Your task to perform on an android device: Go to Reddit.com Image 0: 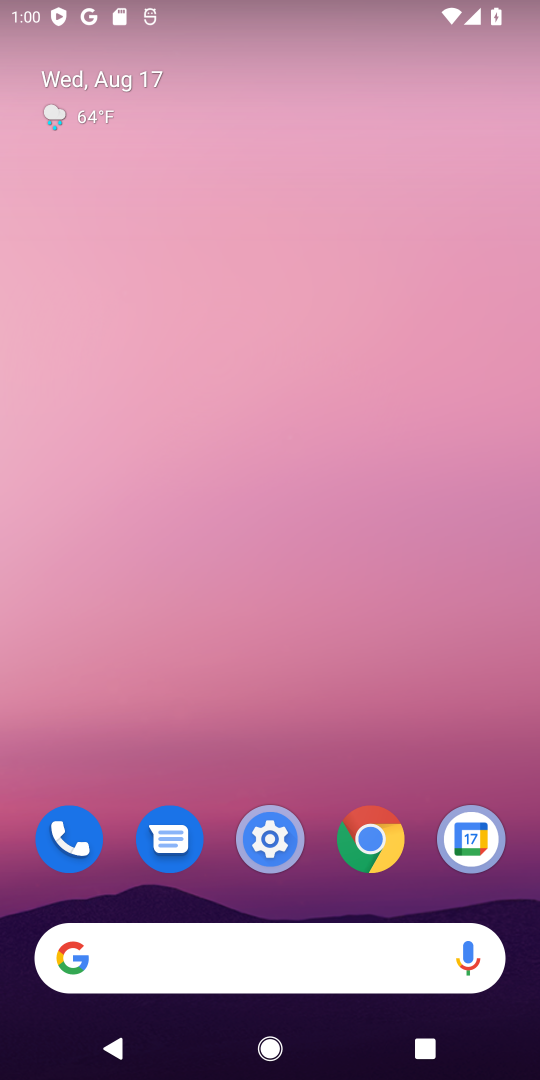
Step 0: click (368, 838)
Your task to perform on an android device: Go to Reddit.com Image 1: 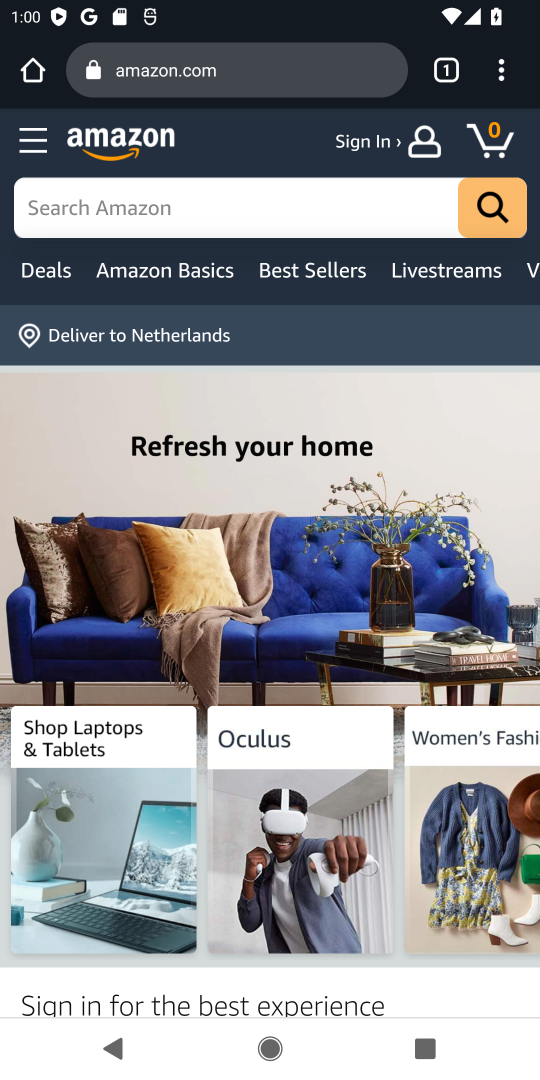
Step 1: click (251, 68)
Your task to perform on an android device: Go to Reddit.com Image 2: 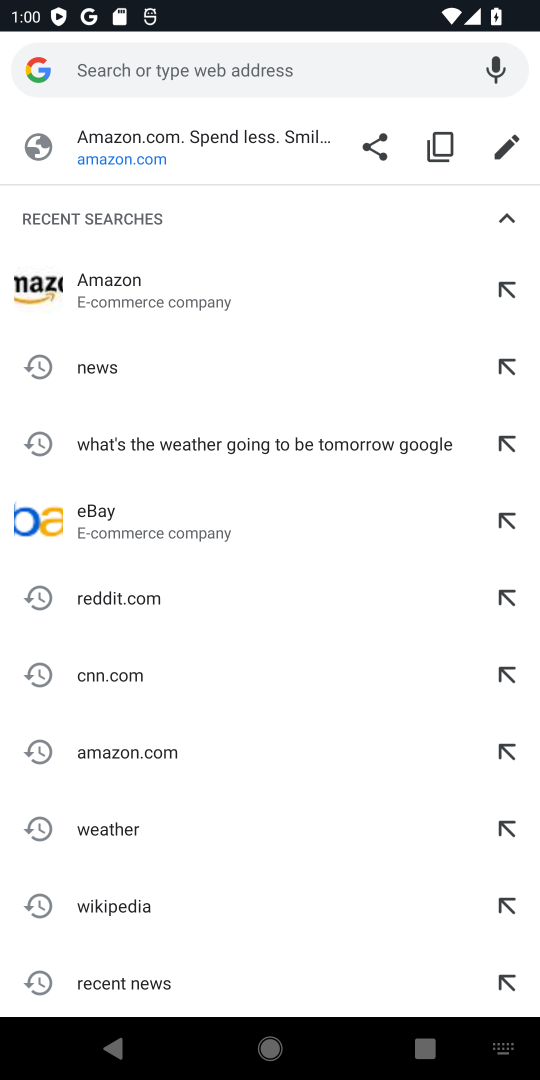
Step 2: click (208, 599)
Your task to perform on an android device: Go to Reddit.com Image 3: 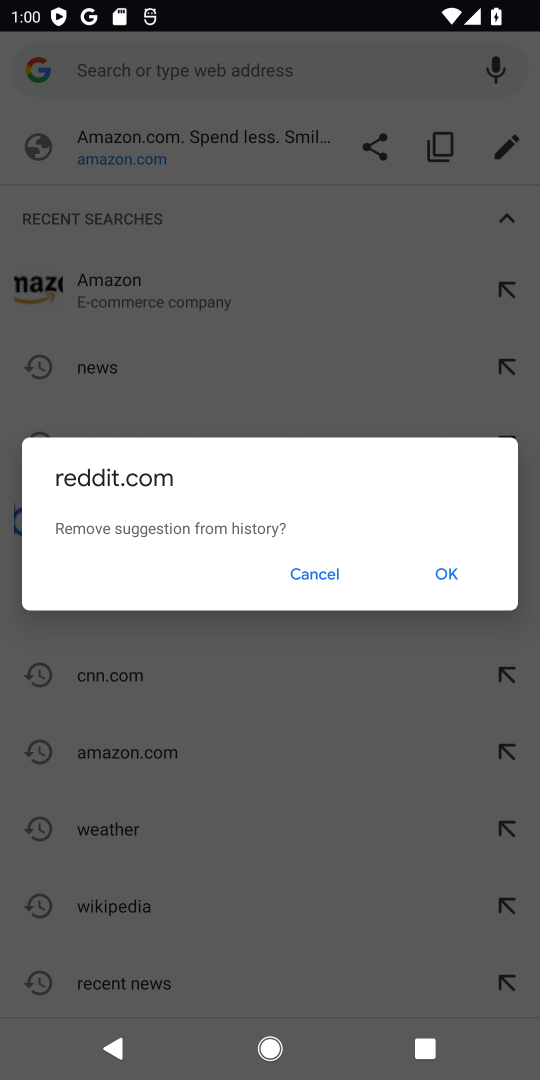
Step 3: click (312, 573)
Your task to perform on an android device: Go to Reddit.com Image 4: 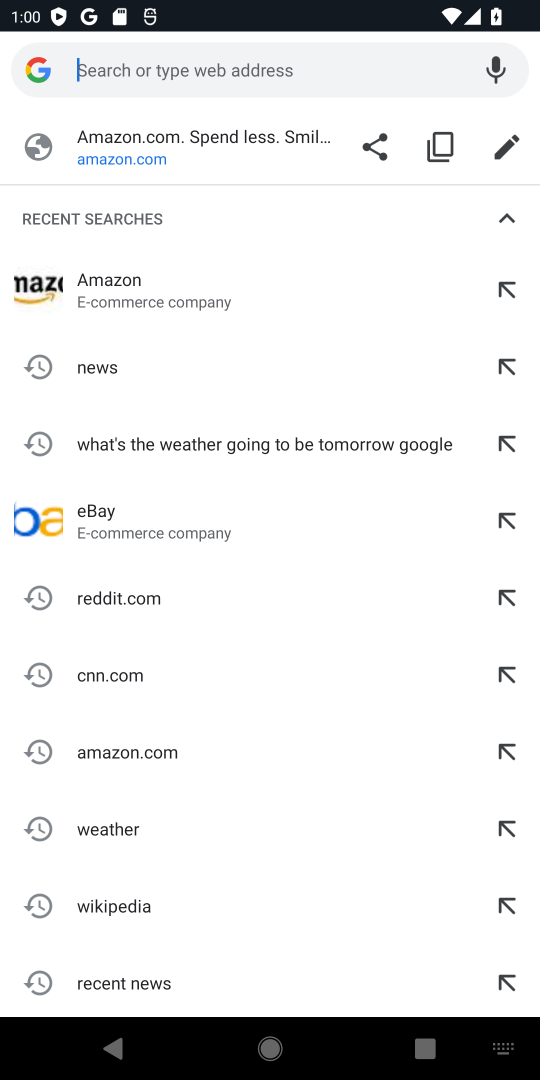
Step 4: click (210, 602)
Your task to perform on an android device: Go to Reddit.com Image 5: 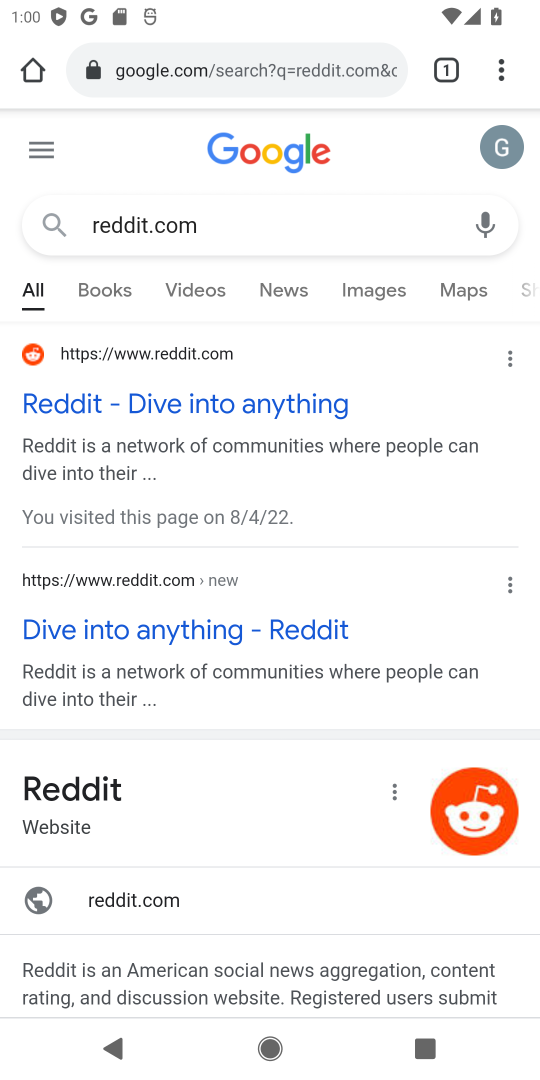
Step 5: click (265, 406)
Your task to perform on an android device: Go to Reddit.com Image 6: 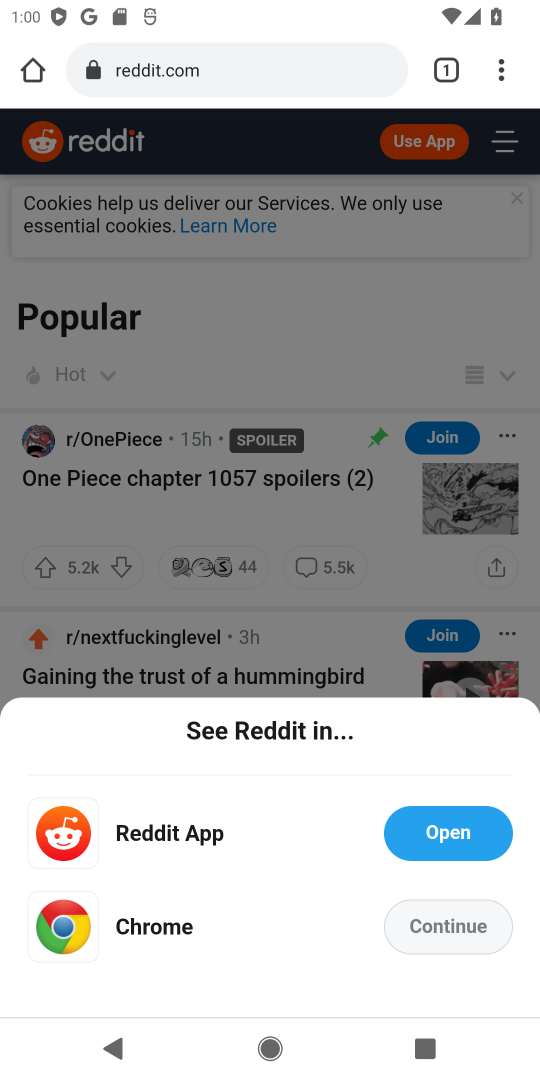
Step 6: click (451, 932)
Your task to perform on an android device: Go to Reddit.com Image 7: 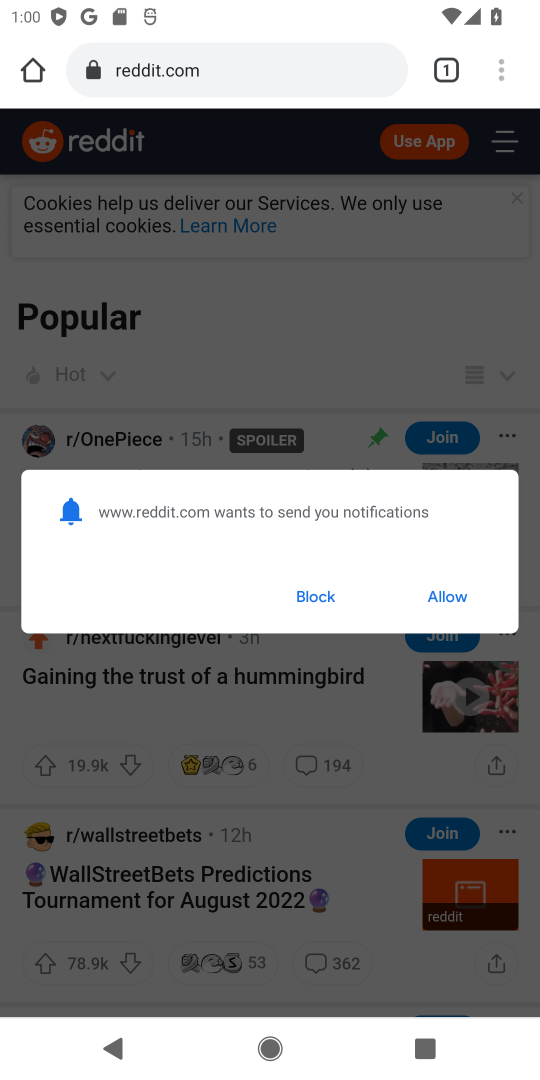
Step 7: click (457, 603)
Your task to perform on an android device: Go to Reddit.com Image 8: 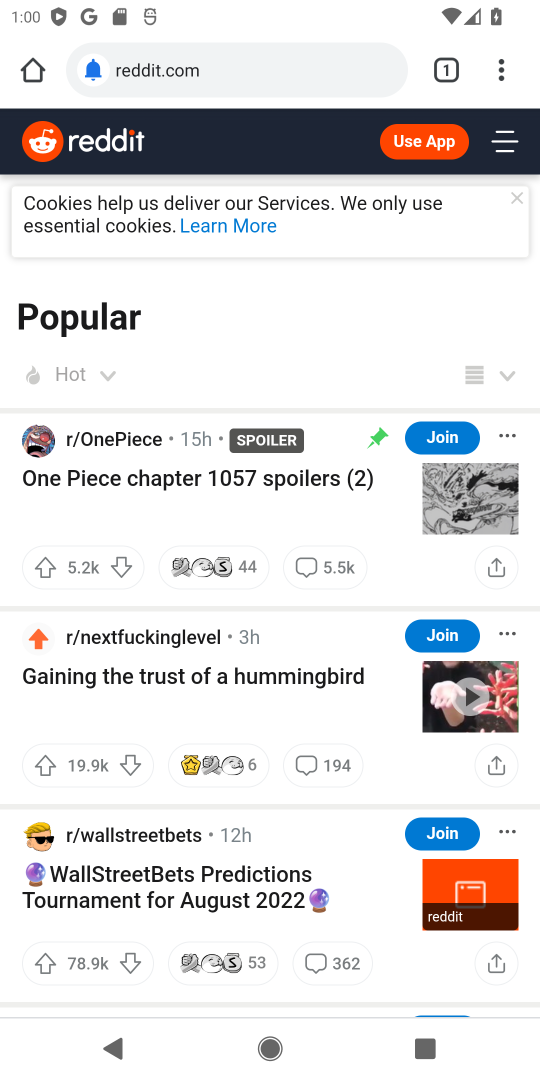
Step 8: task complete